Your task to perform on an android device: Go to internet settings Image 0: 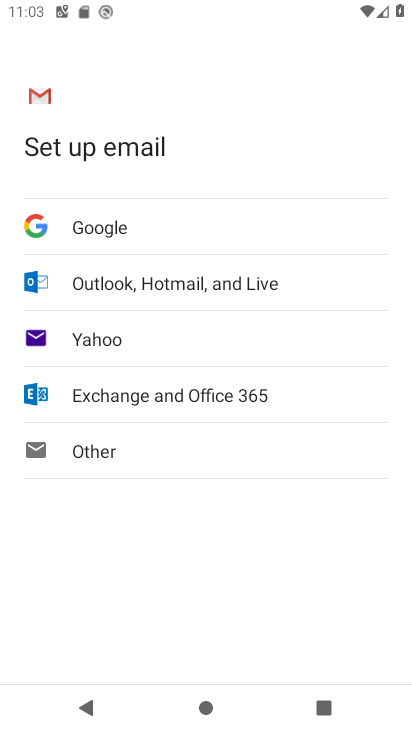
Step 0: press home button
Your task to perform on an android device: Go to internet settings Image 1: 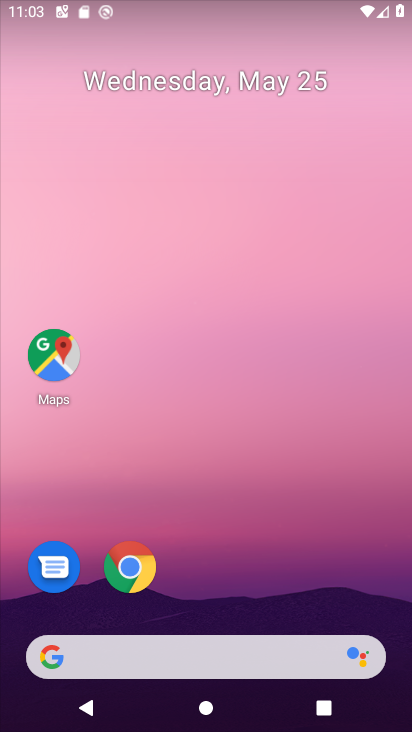
Step 1: drag from (268, 495) to (264, 101)
Your task to perform on an android device: Go to internet settings Image 2: 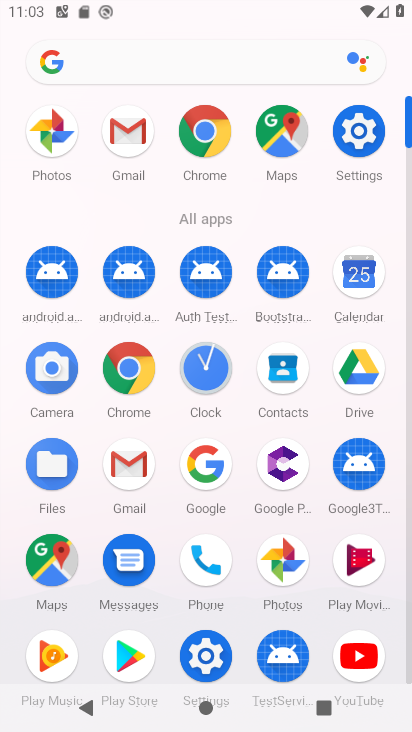
Step 2: click (362, 127)
Your task to perform on an android device: Go to internet settings Image 3: 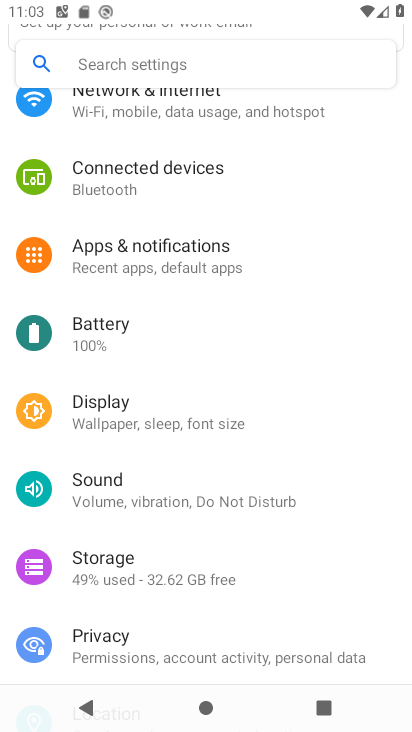
Step 3: click (259, 103)
Your task to perform on an android device: Go to internet settings Image 4: 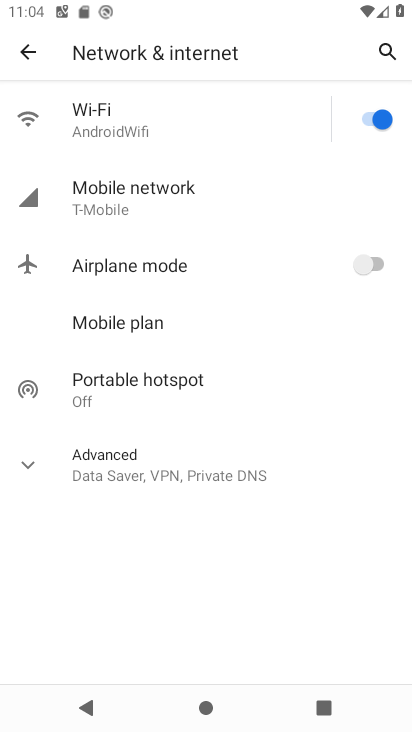
Step 4: task complete